Your task to perform on an android device: turn on wifi Image 0: 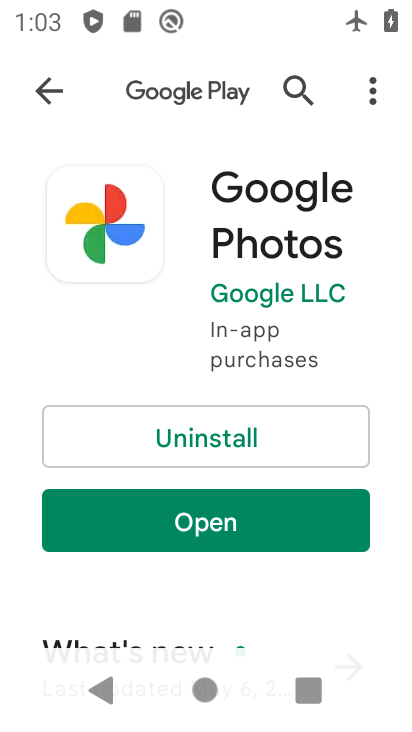
Step 0: press home button
Your task to perform on an android device: turn on wifi Image 1: 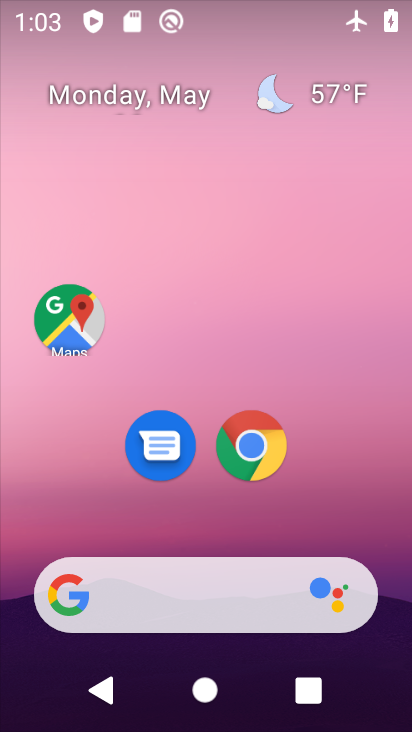
Step 1: drag from (396, 617) to (361, 118)
Your task to perform on an android device: turn on wifi Image 2: 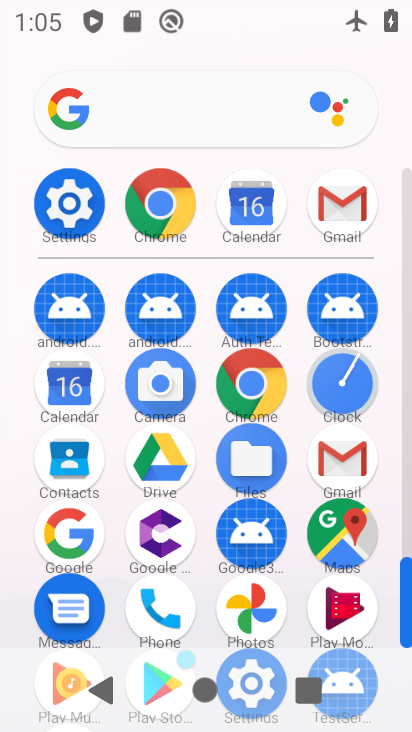
Step 2: drag from (239, 83) to (133, 520)
Your task to perform on an android device: turn on wifi Image 3: 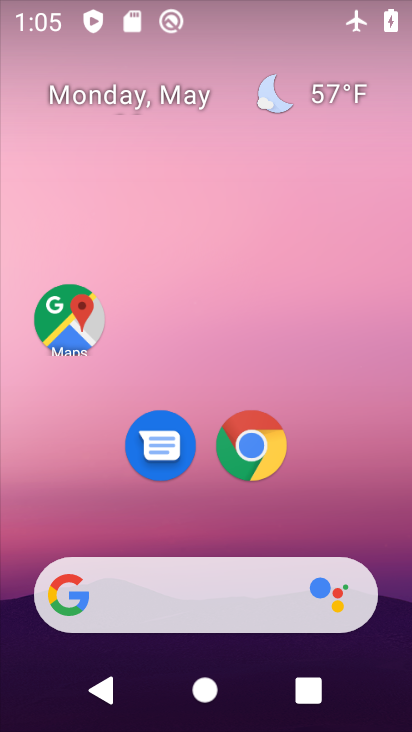
Step 3: drag from (194, 14) to (193, 518)
Your task to perform on an android device: turn on wifi Image 4: 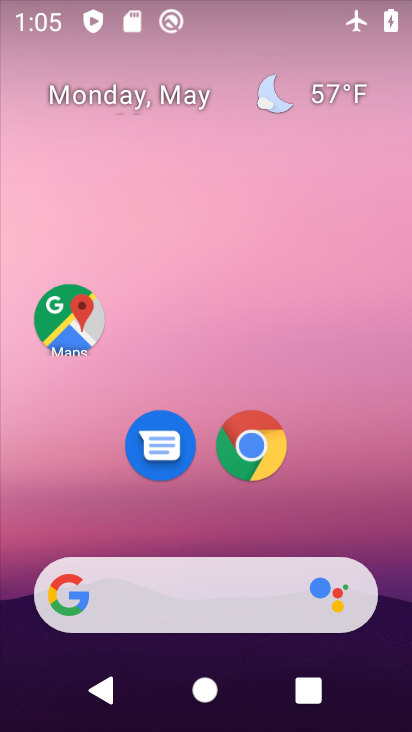
Step 4: drag from (247, 6) to (276, 646)
Your task to perform on an android device: turn on wifi Image 5: 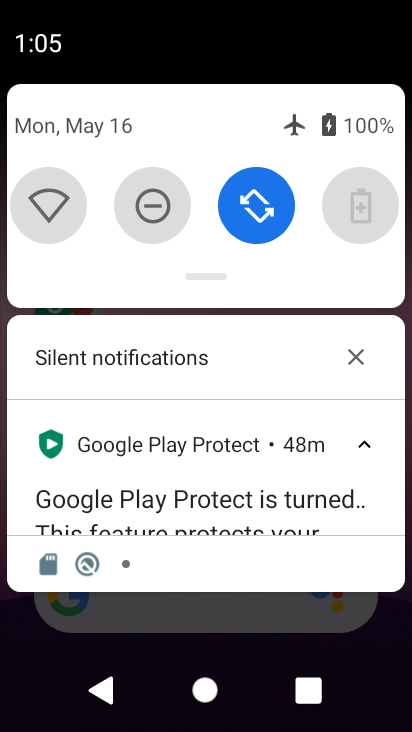
Step 5: click (41, 215)
Your task to perform on an android device: turn on wifi Image 6: 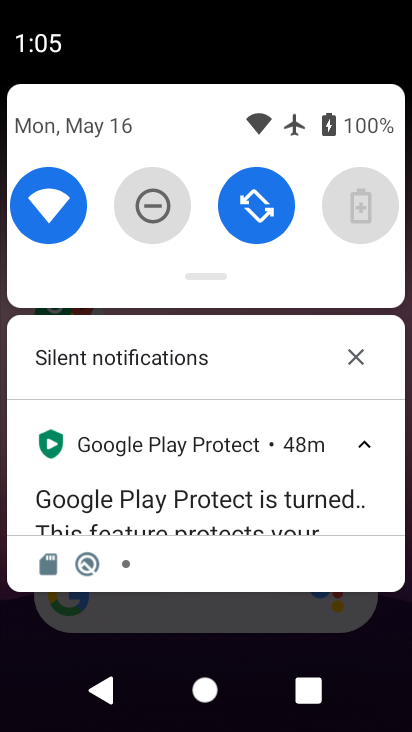
Step 6: task complete